Your task to perform on an android device: Open Android settings Image 0: 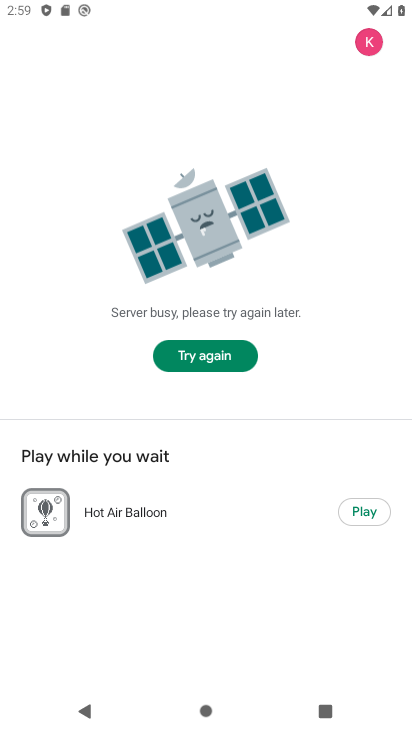
Step 0: press home button
Your task to perform on an android device: Open Android settings Image 1: 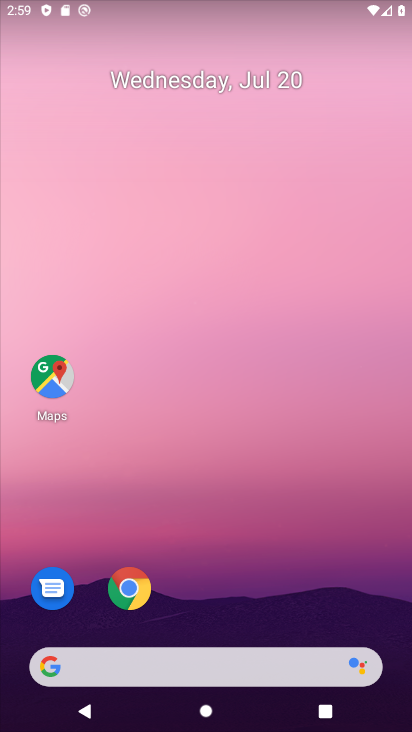
Step 1: click (282, 105)
Your task to perform on an android device: Open Android settings Image 2: 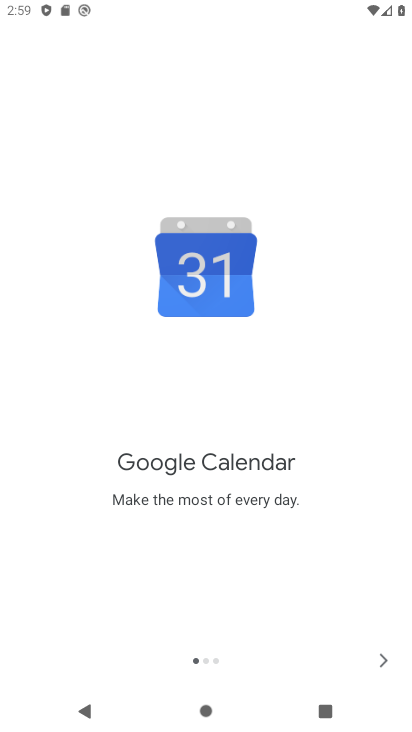
Step 2: press home button
Your task to perform on an android device: Open Android settings Image 3: 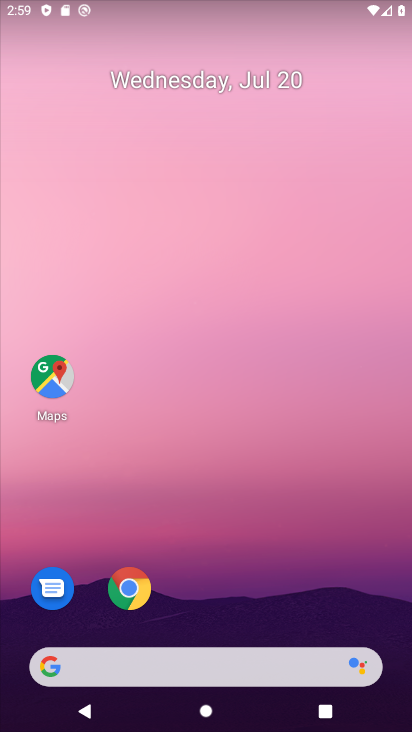
Step 3: drag from (312, 610) to (254, 1)
Your task to perform on an android device: Open Android settings Image 4: 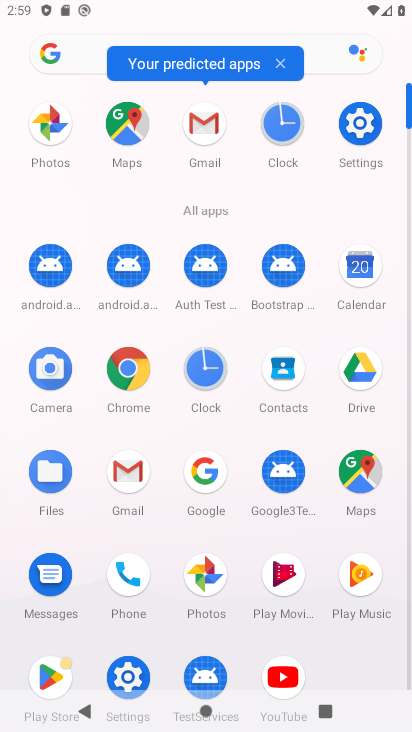
Step 4: click (381, 125)
Your task to perform on an android device: Open Android settings Image 5: 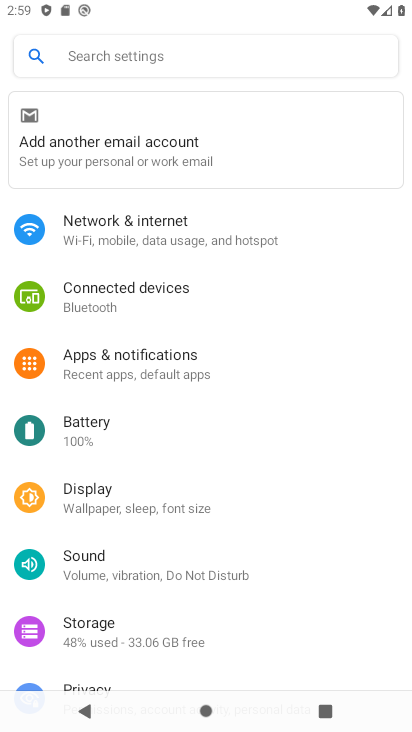
Step 5: drag from (201, 673) to (133, 220)
Your task to perform on an android device: Open Android settings Image 6: 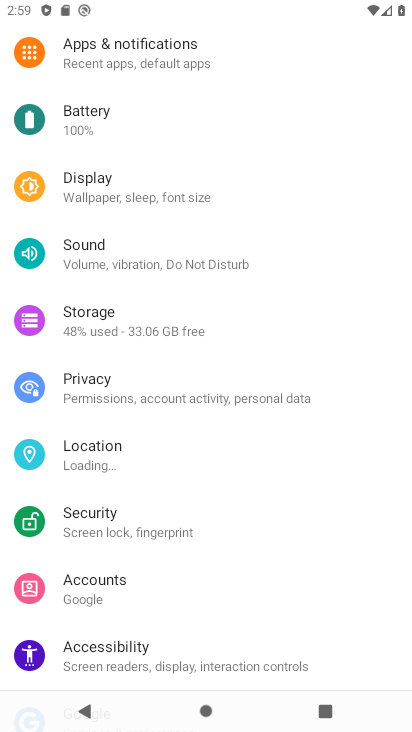
Step 6: drag from (161, 562) to (121, 196)
Your task to perform on an android device: Open Android settings Image 7: 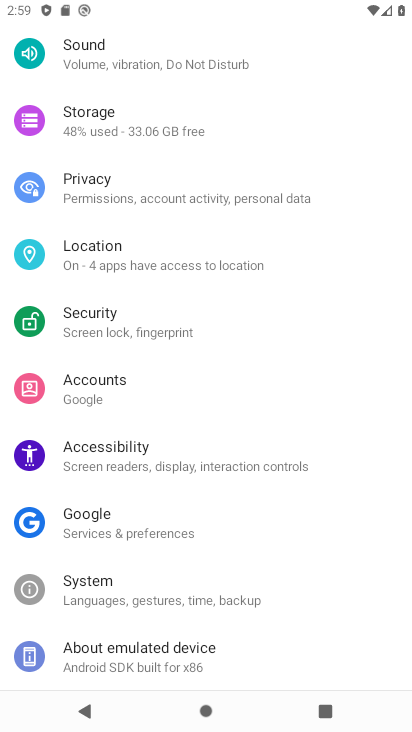
Step 7: click (124, 595)
Your task to perform on an android device: Open Android settings Image 8: 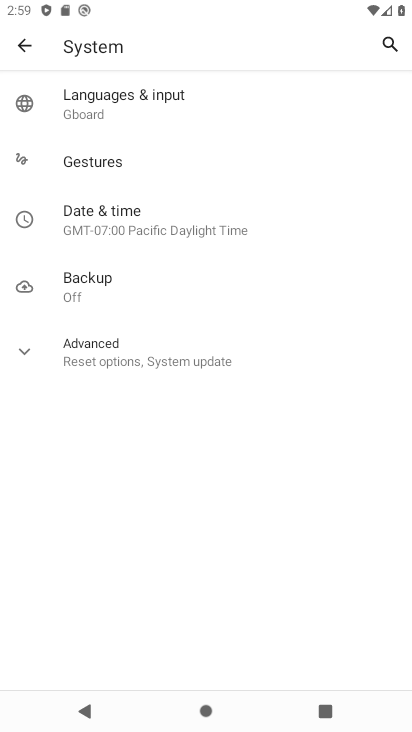
Step 8: task complete